Your task to perform on an android device: install app "The Home Depot" Image 0: 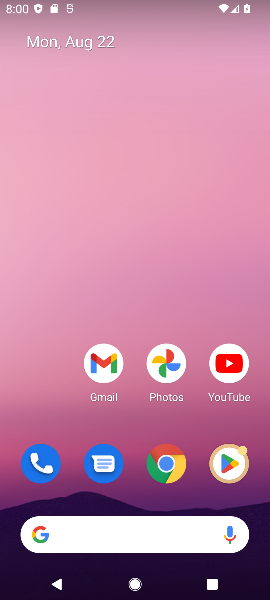
Step 0: drag from (120, 482) to (123, 78)
Your task to perform on an android device: install app "The Home Depot" Image 1: 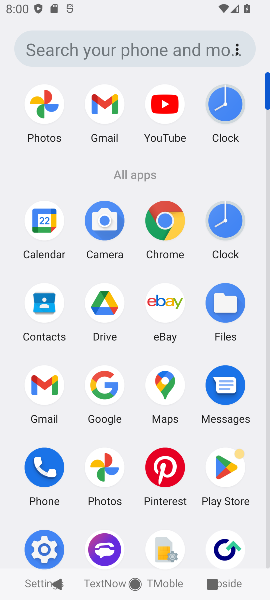
Step 1: click (220, 467)
Your task to perform on an android device: install app "The Home Depot" Image 2: 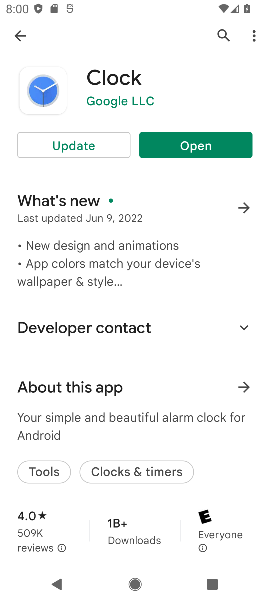
Step 2: click (19, 34)
Your task to perform on an android device: install app "The Home Depot" Image 3: 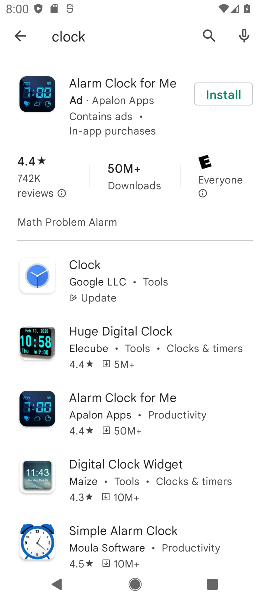
Step 3: click (19, 34)
Your task to perform on an android device: install app "The Home Depot" Image 4: 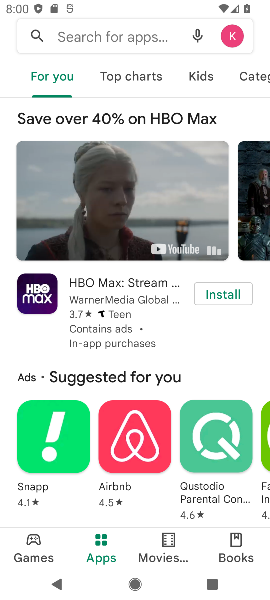
Step 4: click (81, 38)
Your task to perform on an android device: install app "The Home Depot" Image 5: 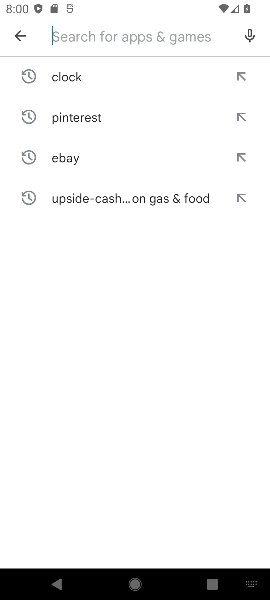
Step 5: type "The Home Depot"
Your task to perform on an android device: install app "The Home Depot" Image 6: 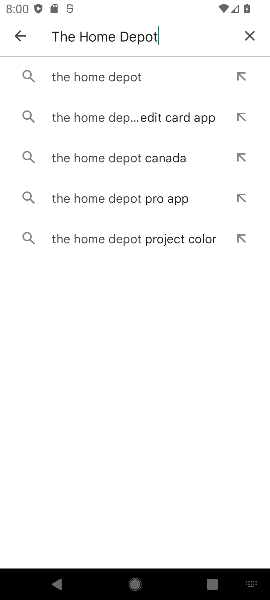
Step 6: click (143, 76)
Your task to perform on an android device: install app "The Home Depot" Image 7: 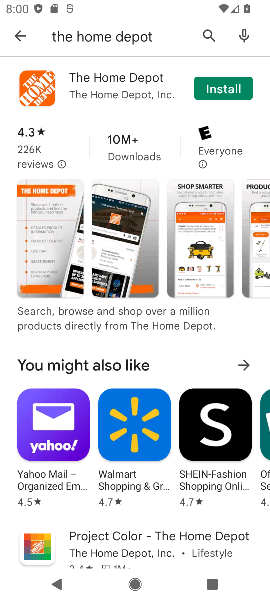
Step 7: click (221, 91)
Your task to perform on an android device: install app "The Home Depot" Image 8: 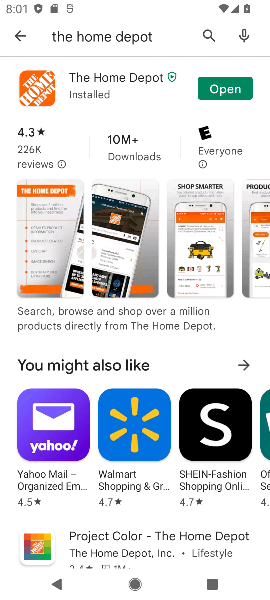
Step 8: task complete